Your task to perform on an android device: Open sound settings Image 0: 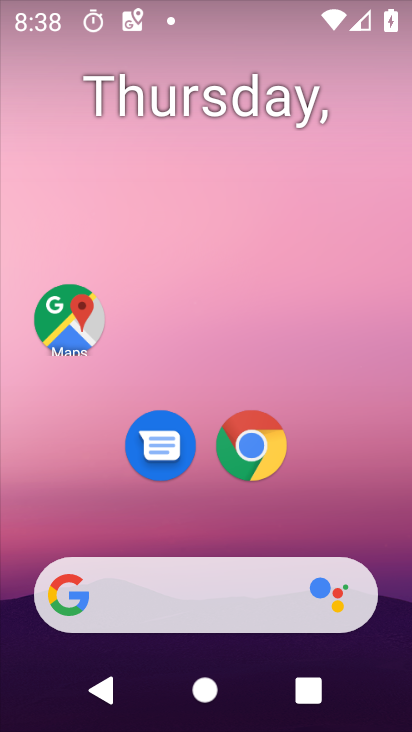
Step 0: drag from (105, 538) to (260, 207)
Your task to perform on an android device: Open sound settings Image 1: 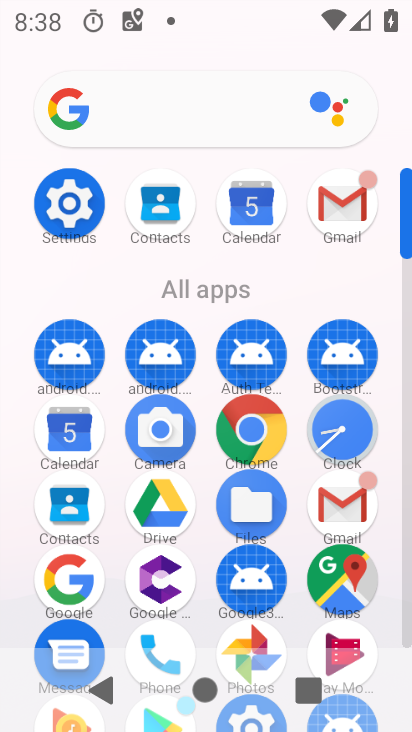
Step 1: click (78, 193)
Your task to perform on an android device: Open sound settings Image 2: 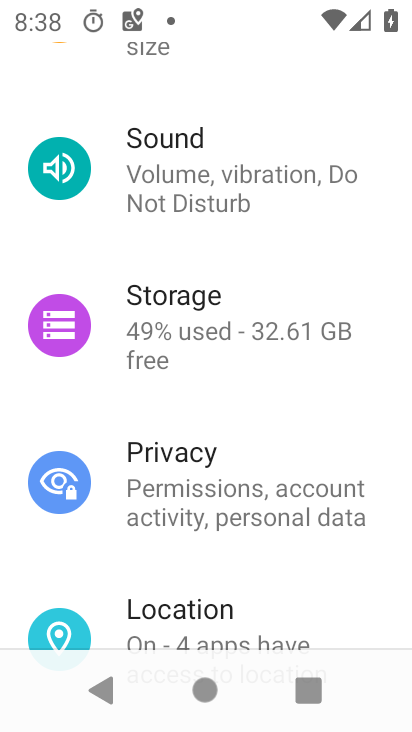
Step 2: click (69, 166)
Your task to perform on an android device: Open sound settings Image 3: 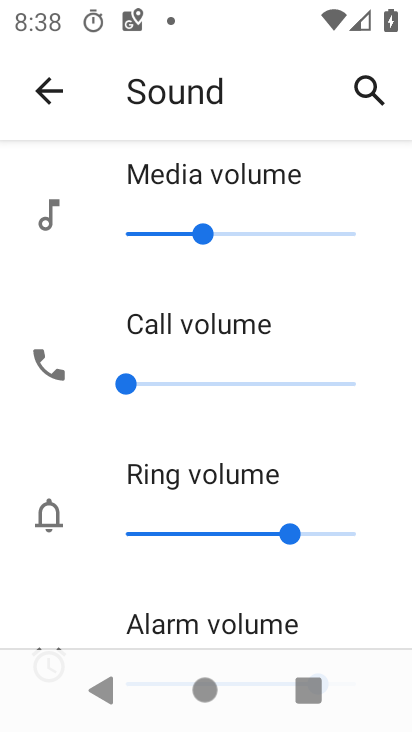
Step 3: task complete